Your task to perform on an android device: change the clock display to analog Image 0: 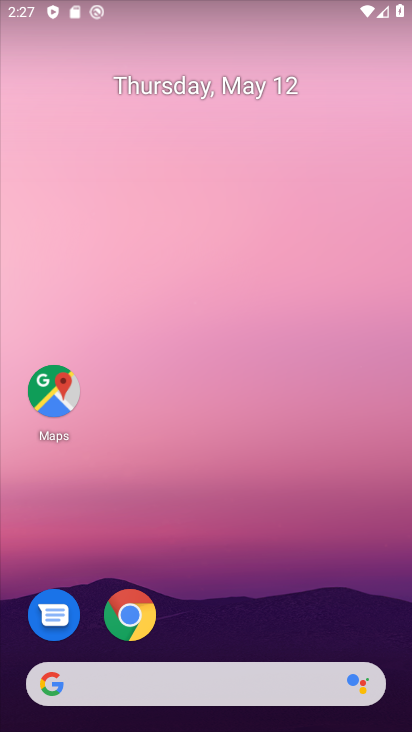
Step 0: drag from (36, 657) to (404, 386)
Your task to perform on an android device: change the clock display to analog Image 1: 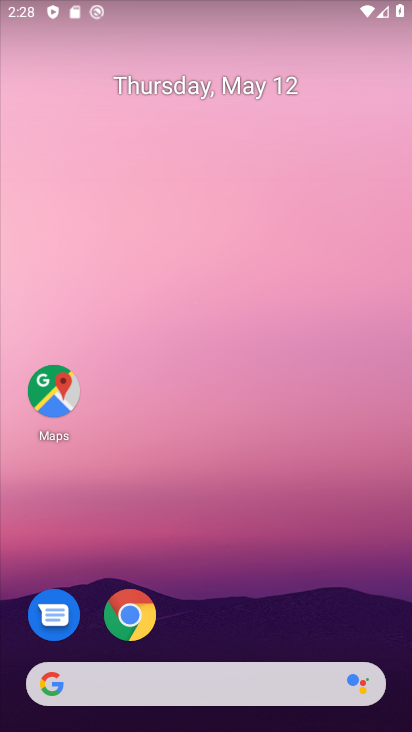
Step 1: drag from (42, 595) to (272, 172)
Your task to perform on an android device: change the clock display to analog Image 2: 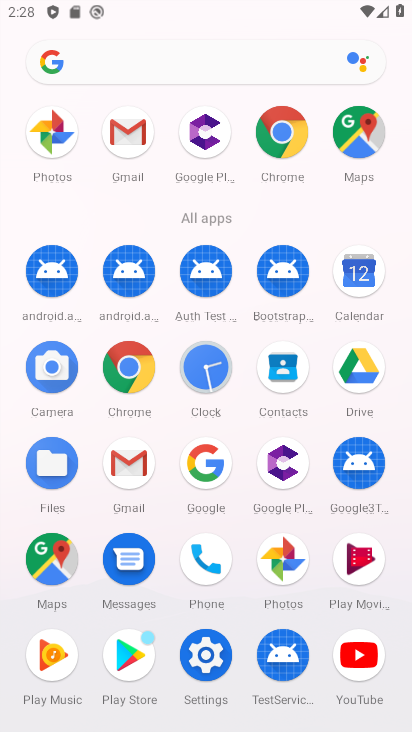
Step 2: click (213, 371)
Your task to perform on an android device: change the clock display to analog Image 3: 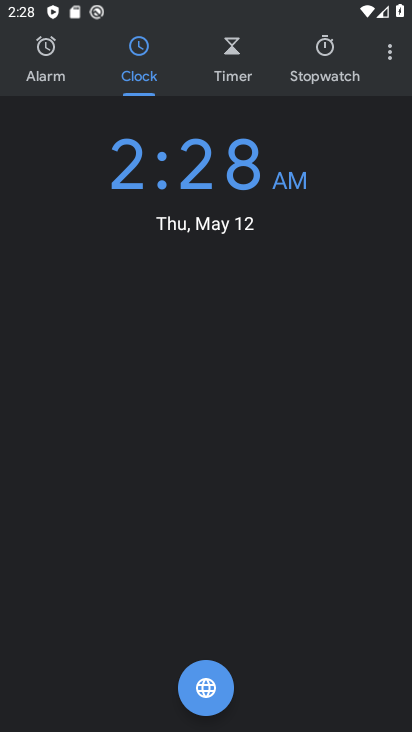
Step 3: click (379, 57)
Your task to perform on an android device: change the clock display to analog Image 4: 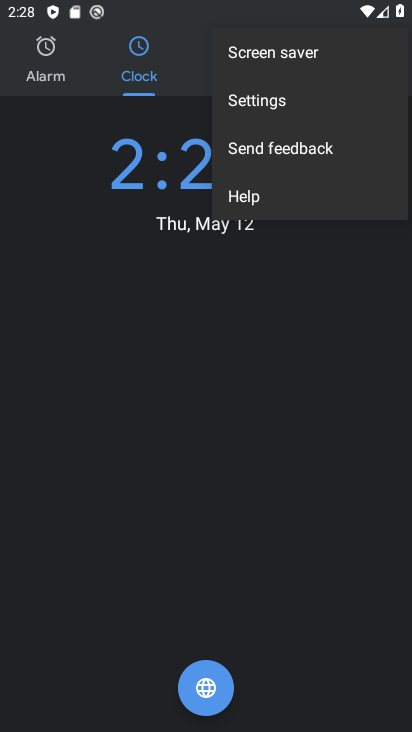
Step 4: click (267, 112)
Your task to perform on an android device: change the clock display to analog Image 5: 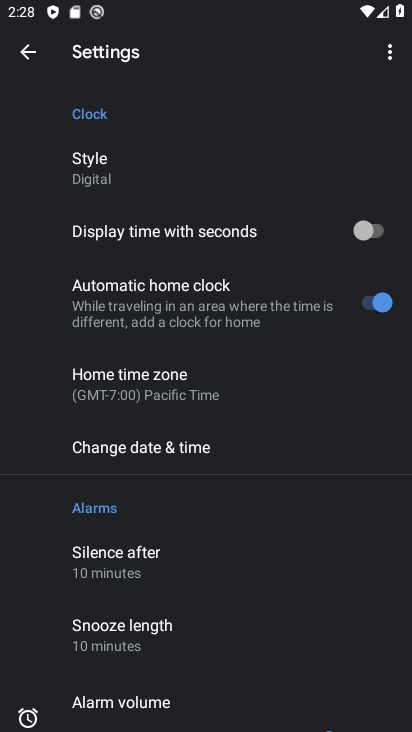
Step 5: click (166, 181)
Your task to perform on an android device: change the clock display to analog Image 6: 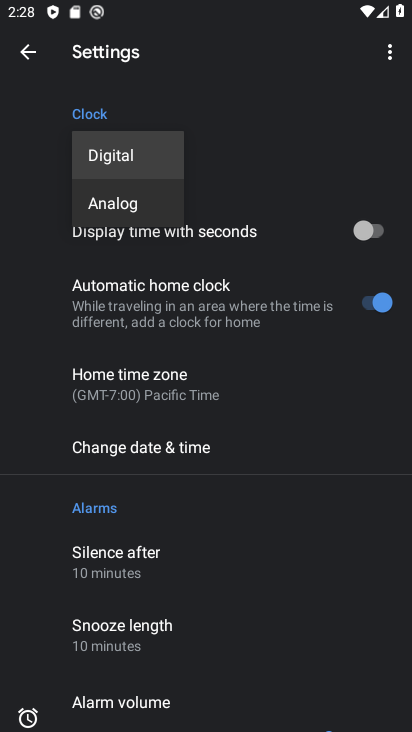
Step 6: click (120, 203)
Your task to perform on an android device: change the clock display to analog Image 7: 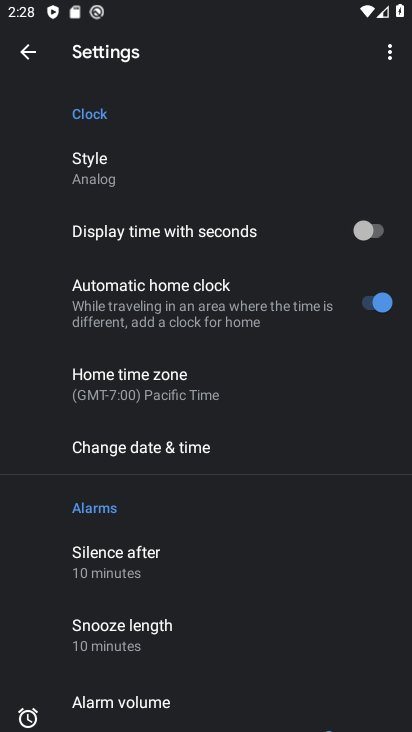
Step 7: task complete